Your task to perform on an android device: What's the weather today? Image 0: 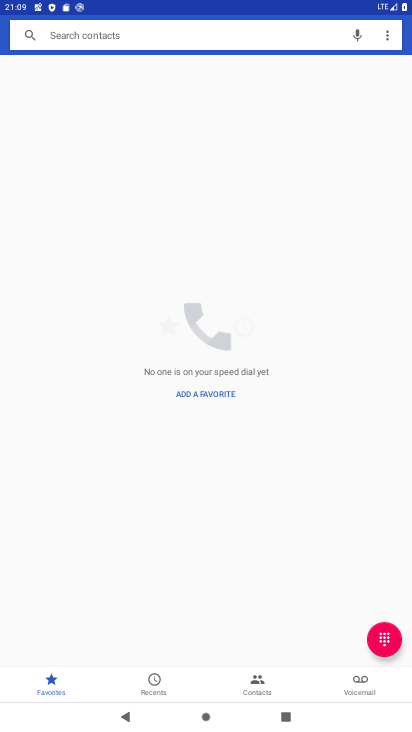
Step 0: press home button
Your task to perform on an android device: What's the weather today? Image 1: 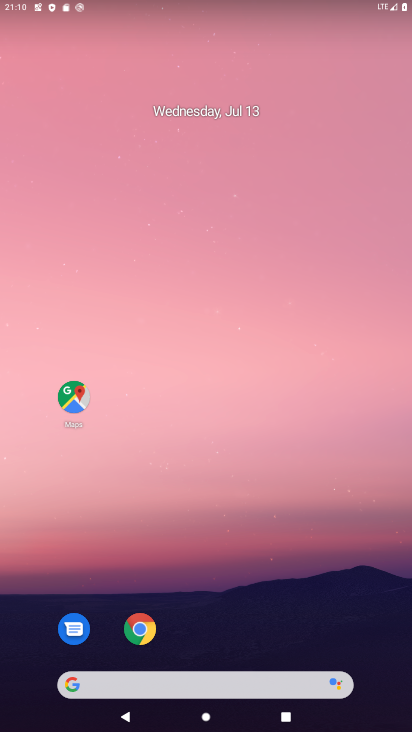
Step 1: drag from (202, 599) to (203, 87)
Your task to perform on an android device: What's the weather today? Image 2: 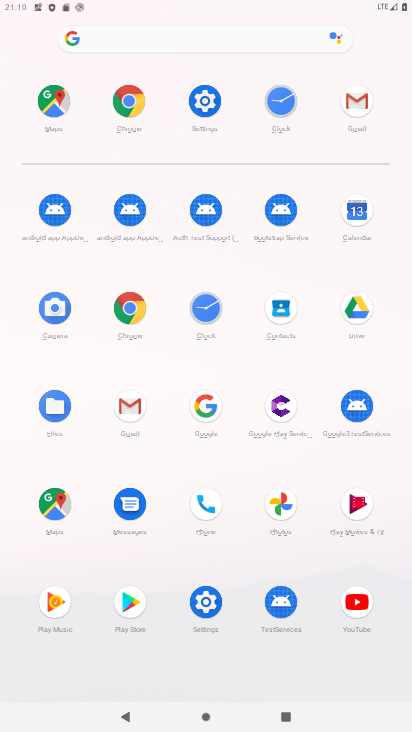
Step 2: click (124, 296)
Your task to perform on an android device: What's the weather today? Image 3: 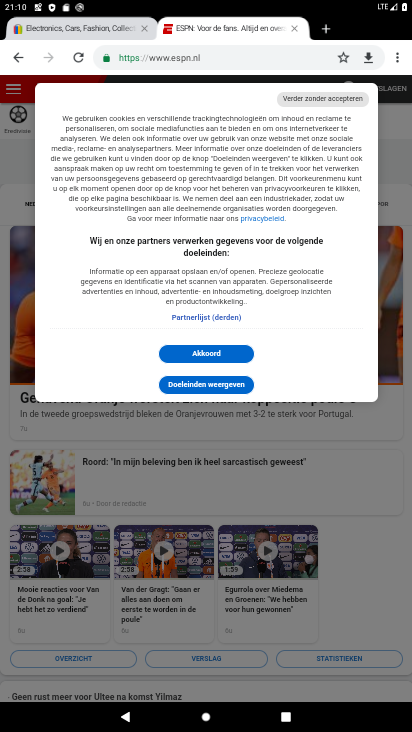
Step 3: click (184, 56)
Your task to perform on an android device: What's the weather today? Image 4: 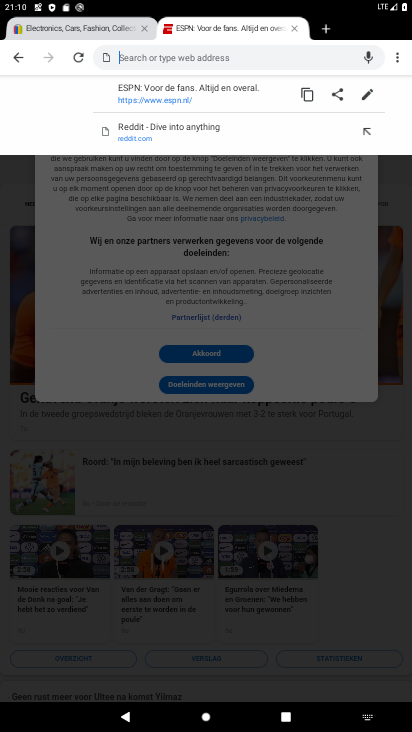
Step 4: type "whats rhe weather today?"
Your task to perform on an android device: What's the weather today? Image 5: 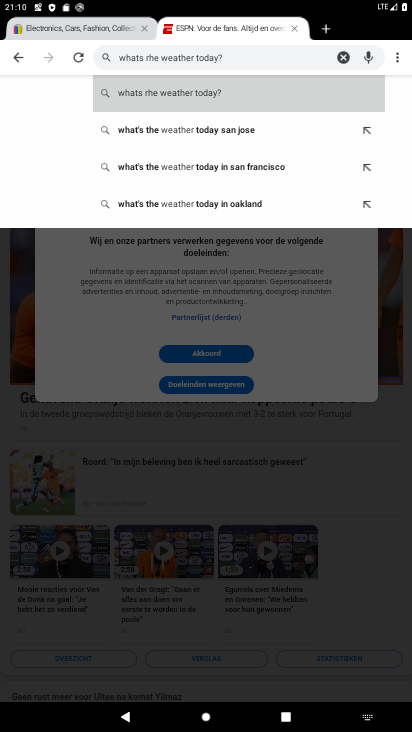
Step 5: click (134, 86)
Your task to perform on an android device: What's the weather today? Image 6: 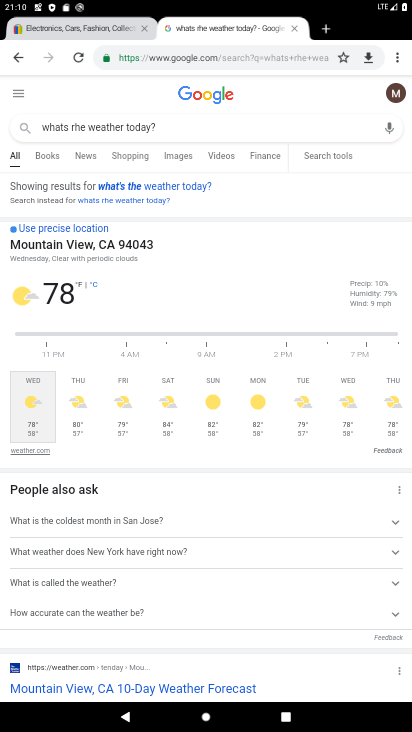
Step 6: task complete